Your task to perform on an android device: Open sound settings Image 0: 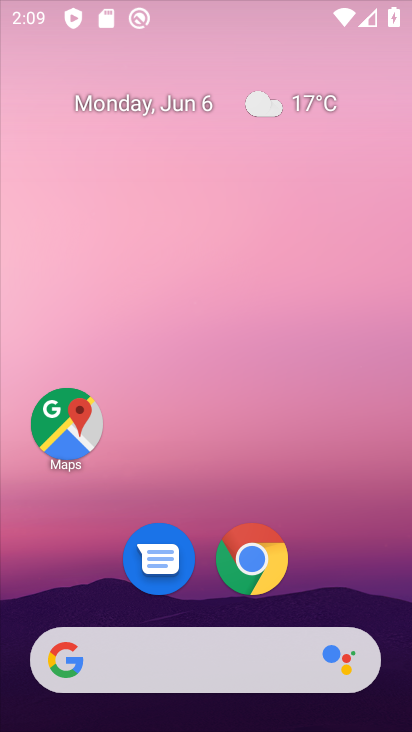
Step 0: drag from (362, 577) to (365, 191)
Your task to perform on an android device: Open sound settings Image 1: 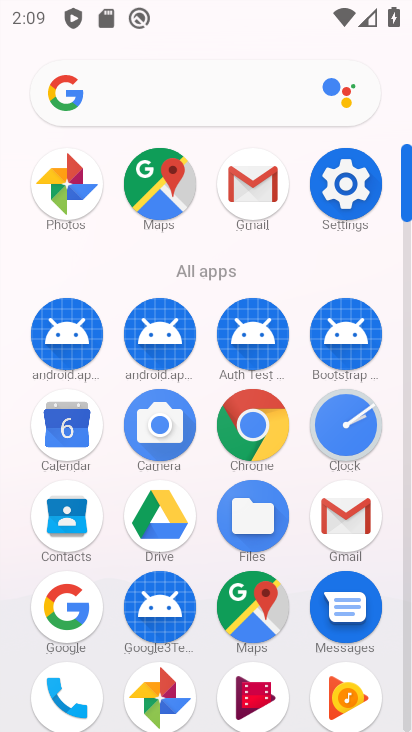
Step 1: click (344, 175)
Your task to perform on an android device: Open sound settings Image 2: 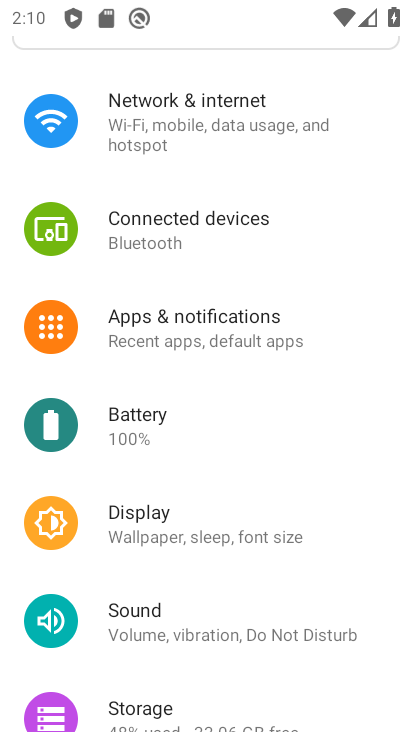
Step 2: drag from (288, 679) to (303, 381)
Your task to perform on an android device: Open sound settings Image 3: 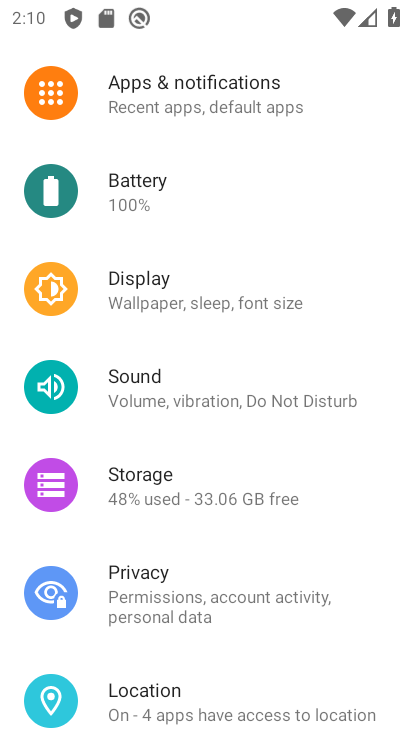
Step 3: click (243, 383)
Your task to perform on an android device: Open sound settings Image 4: 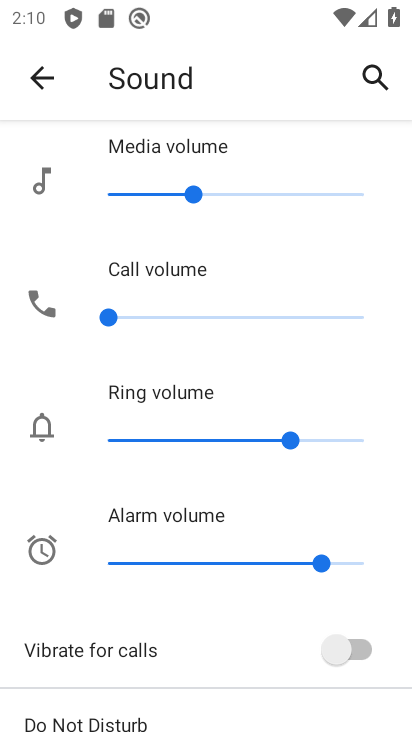
Step 4: task complete